Your task to perform on an android device: turn on airplane mode Image 0: 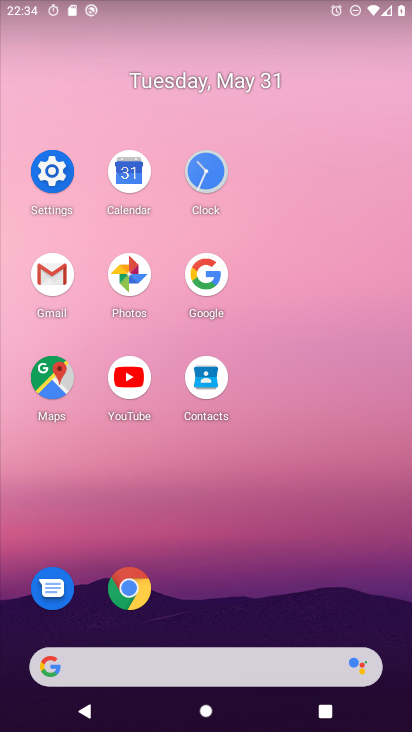
Step 0: click (50, 169)
Your task to perform on an android device: turn on airplane mode Image 1: 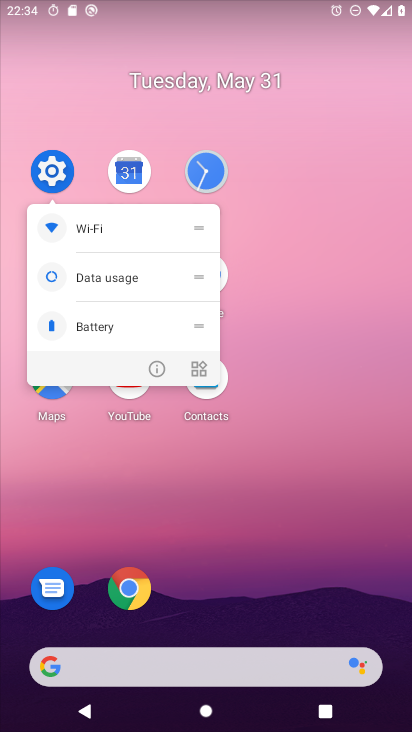
Step 1: click (73, 170)
Your task to perform on an android device: turn on airplane mode Image 2: 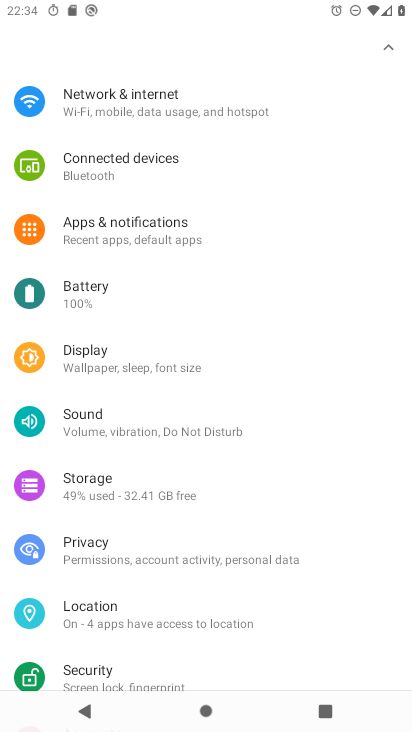
Step 2: click (140, 110)
Your task to perform on an android device: turn on airplane mode Image 3: 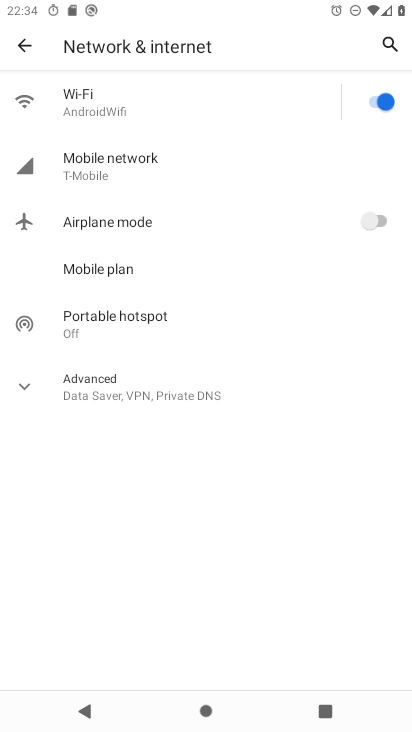
Step 3: click (392, 223)
Your task to perform on an android device: turn on airplane mode Image 4: 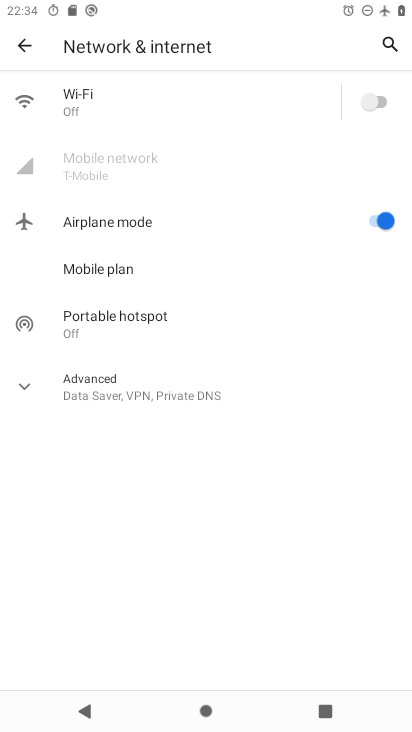
Step 4: task complete